Your task to perform on an android device: check the backup settings in the google photos Image 0: 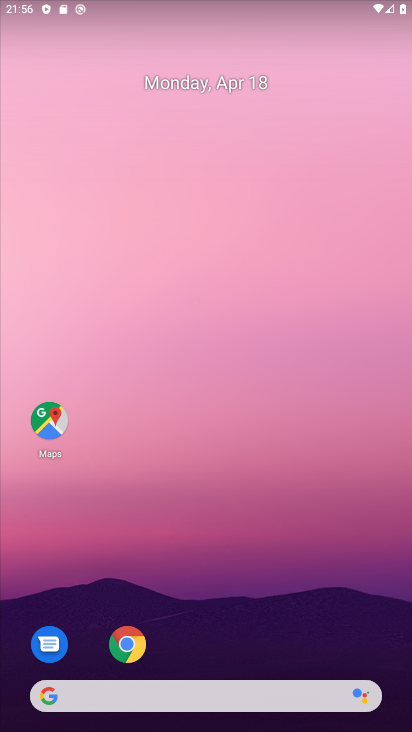
Step 0: drag from (254, 636) to (319, 124)
Your task to perform on an android device: check the backup settings in the google photos Image 1: 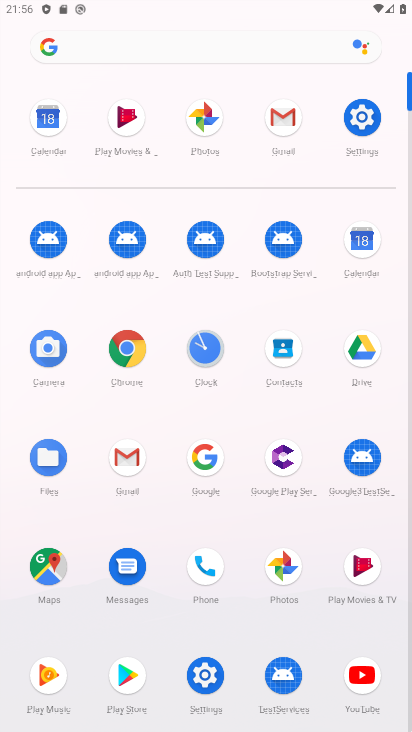
Step 1: click (285, 565)
Your task to perform on an android device: check the backup settings in the google photos Image 2: 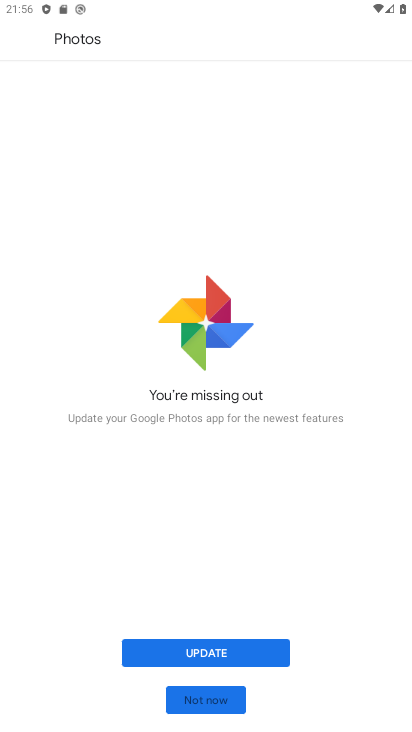
Step 2: click (220, 716)
Your task to perform on an android device: check the backup settings in the google photos Image 3: 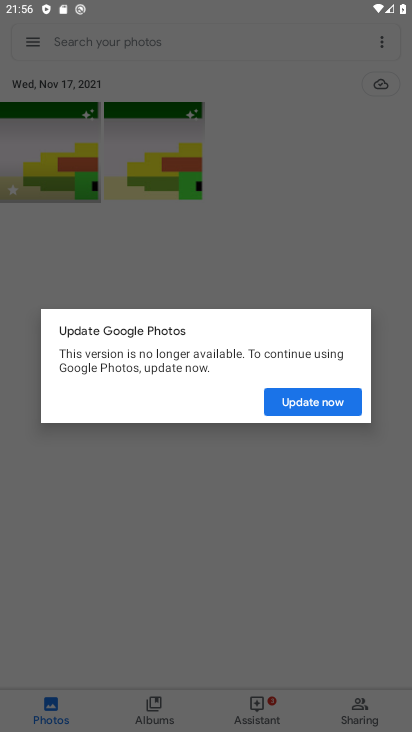
Step 3: click (296, 396)
Your task to perform on an android device: check the backup settings in the google photos Image 4: 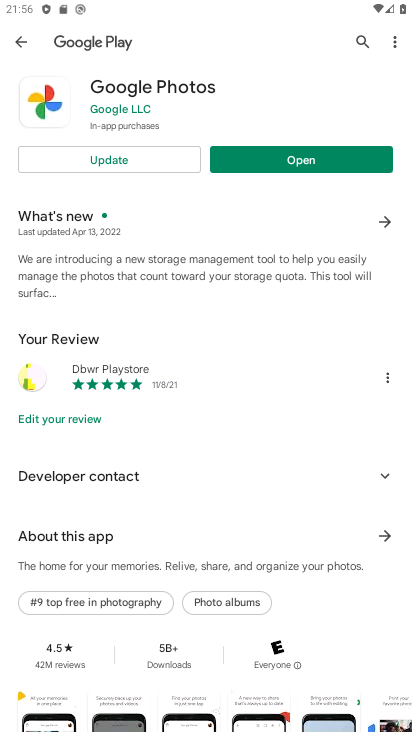
Step 4: click (264, 158)
Your task to perform on an android device: check the backup settings in the google photos Image 5: 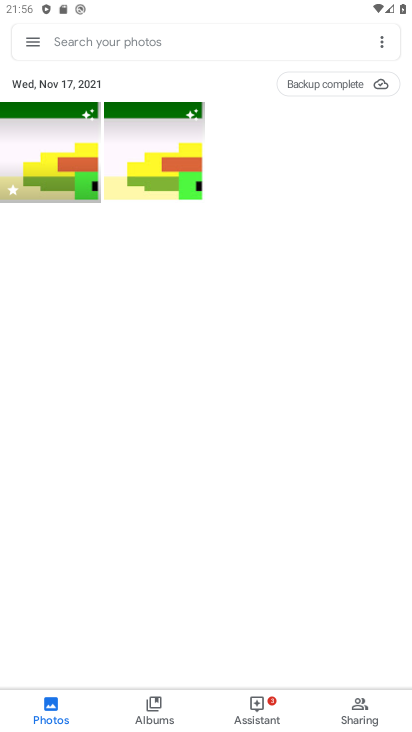
Step 5: click (31, 47)
Your task to perform on an android device: check the backup settings in the google photos Image 6: 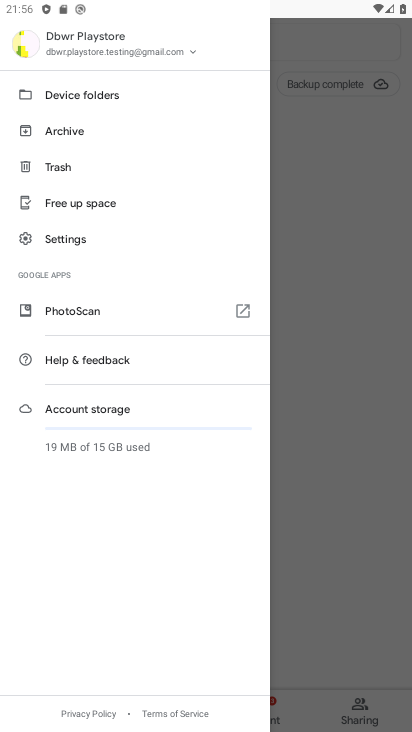
Step 6: click (74, 235)
Your task to perform on an android device: check the backup settings in the google photos Image 7: 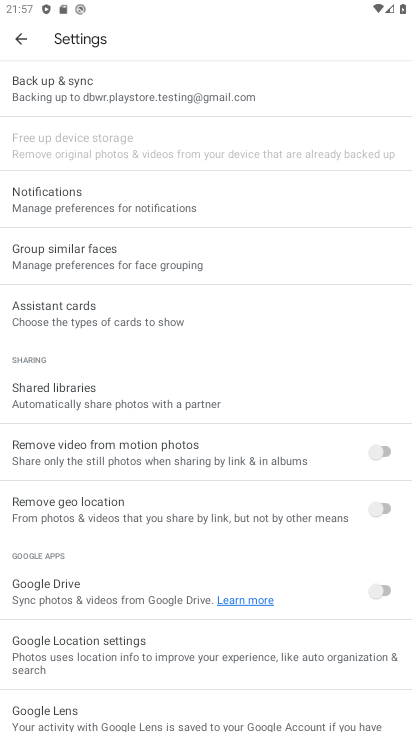
Step 7: click (119, 89)
Your task to perform on an android device: check the backup settings in the google photos Image 8: 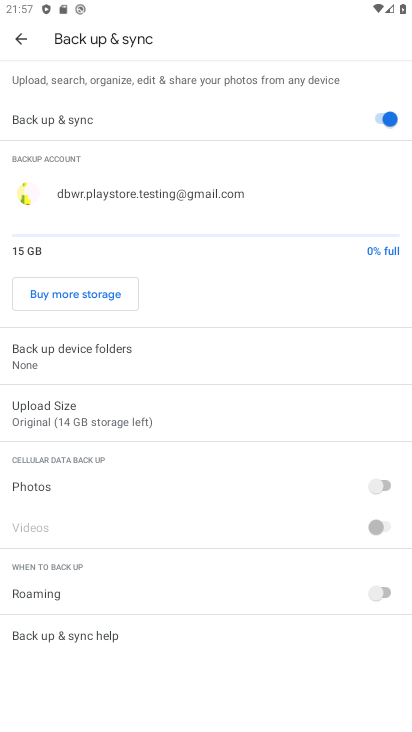
Step 8: task complete